Your task to perform on an android device: Show me popular games on the Play Store Image 0: 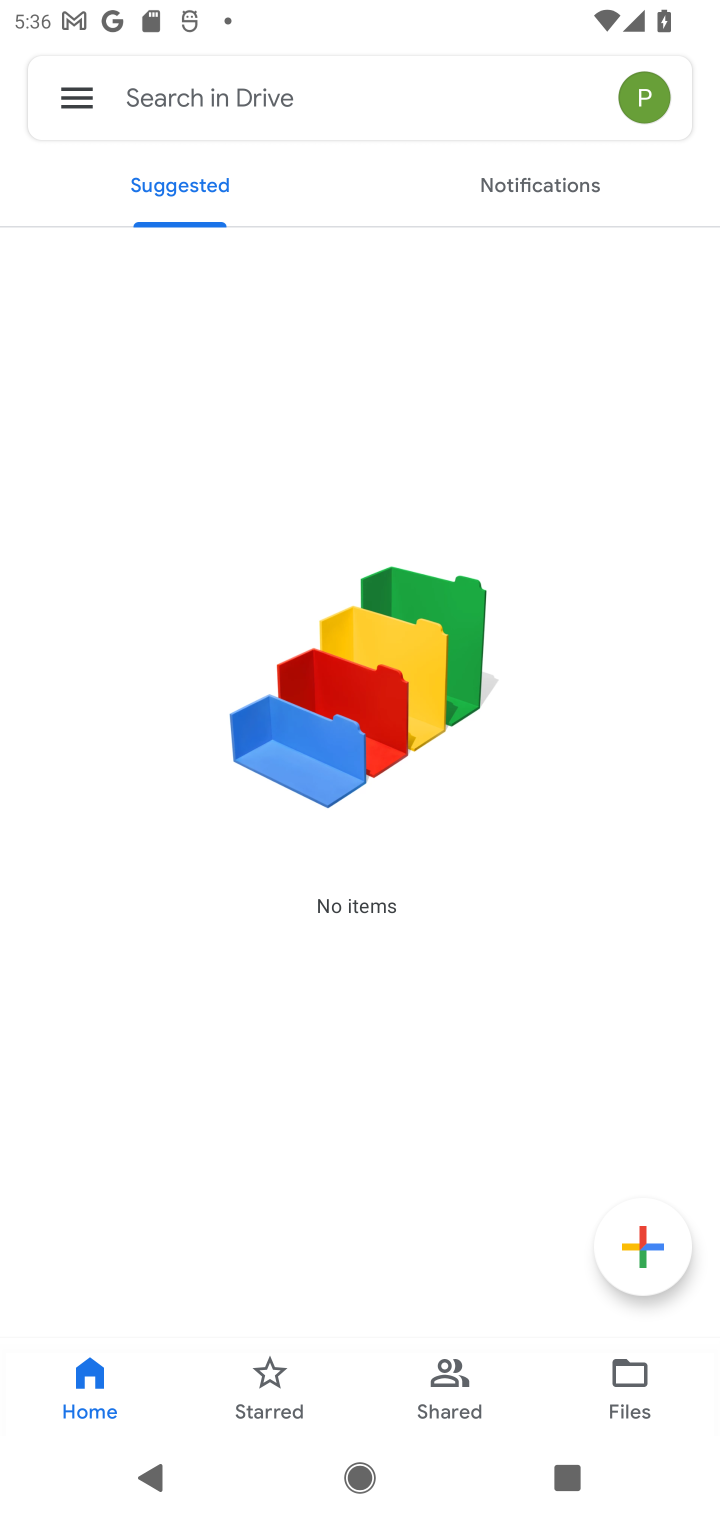
Step 0: press home button
Your task to perform on an android device: Show me popular games on the Play Store Image 1: 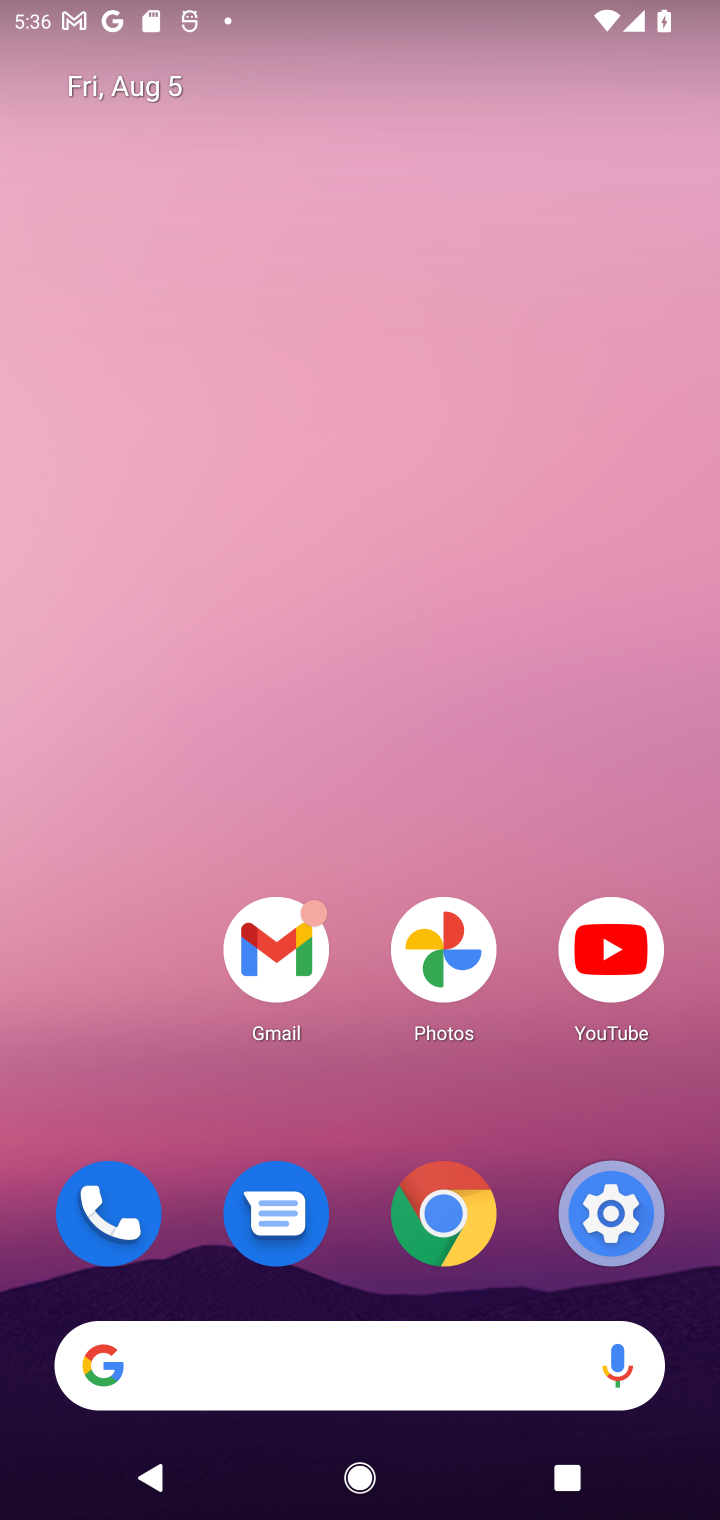
Step 1: drag from (364, 1285) to (429, 9)
Your task to perform on an android device: Show me popular games on the Play Store Image 2: 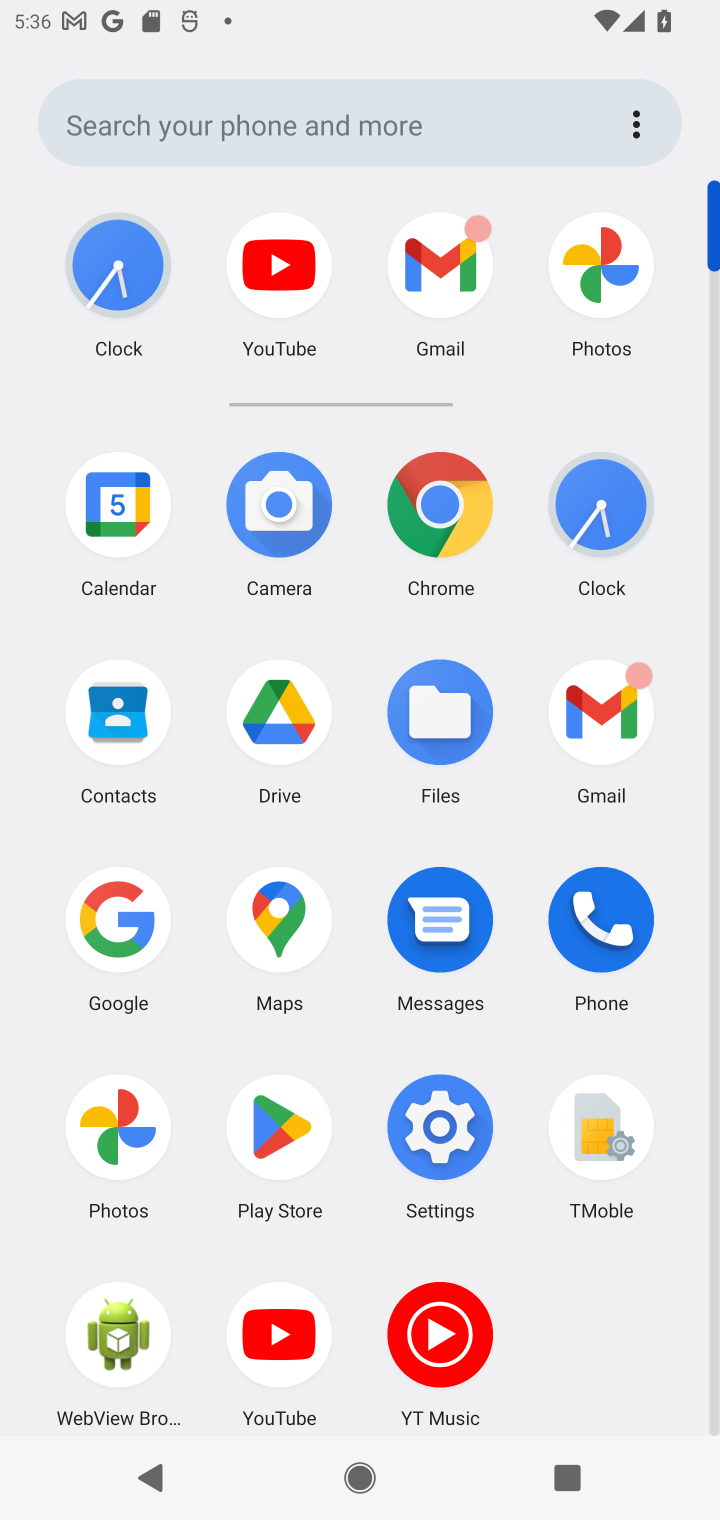
Step 2: click (289, 1154)
Your task to perform on an android device: Show me popular games on the Play Store Image 3: 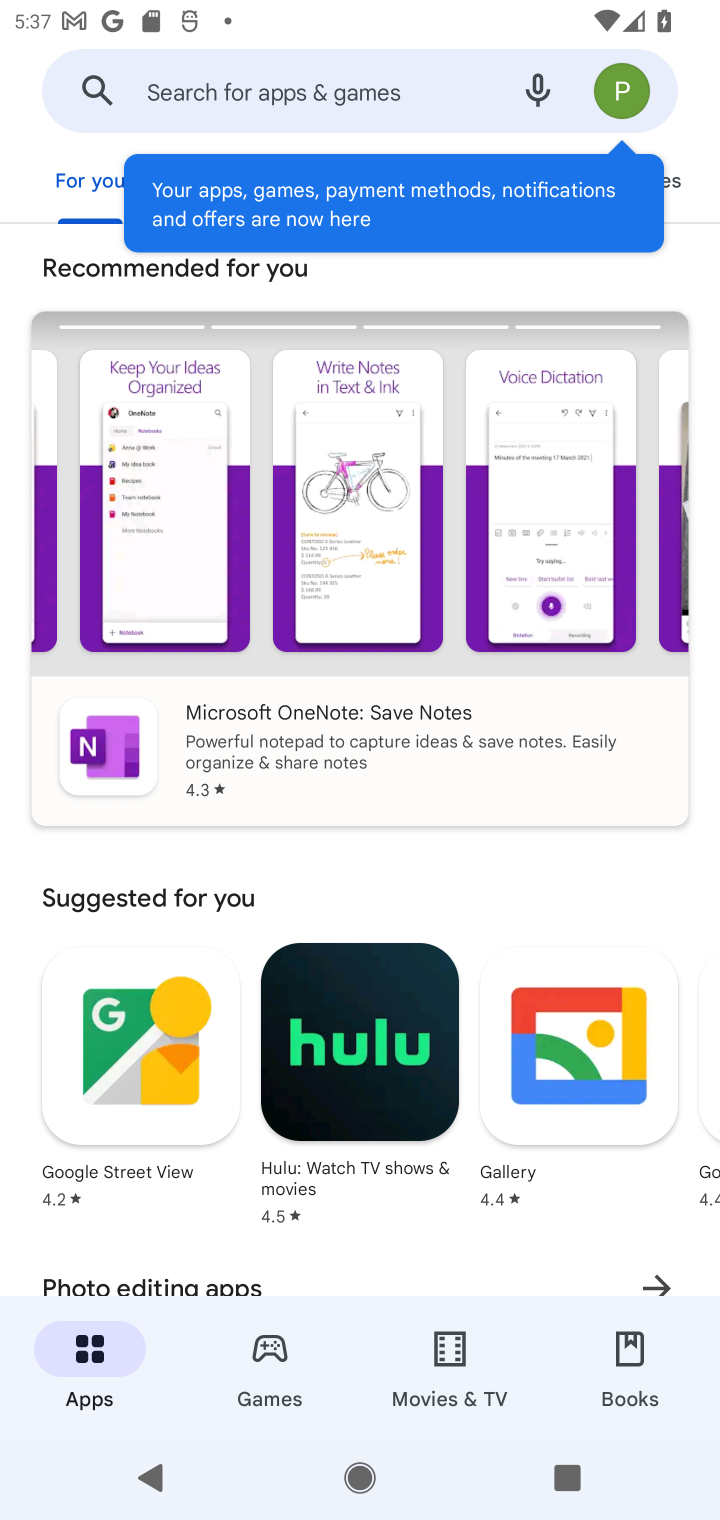
Step 3: click (286, 1317)
Your task to perform on an android device: Show me popular games on the Play Store Image 4: 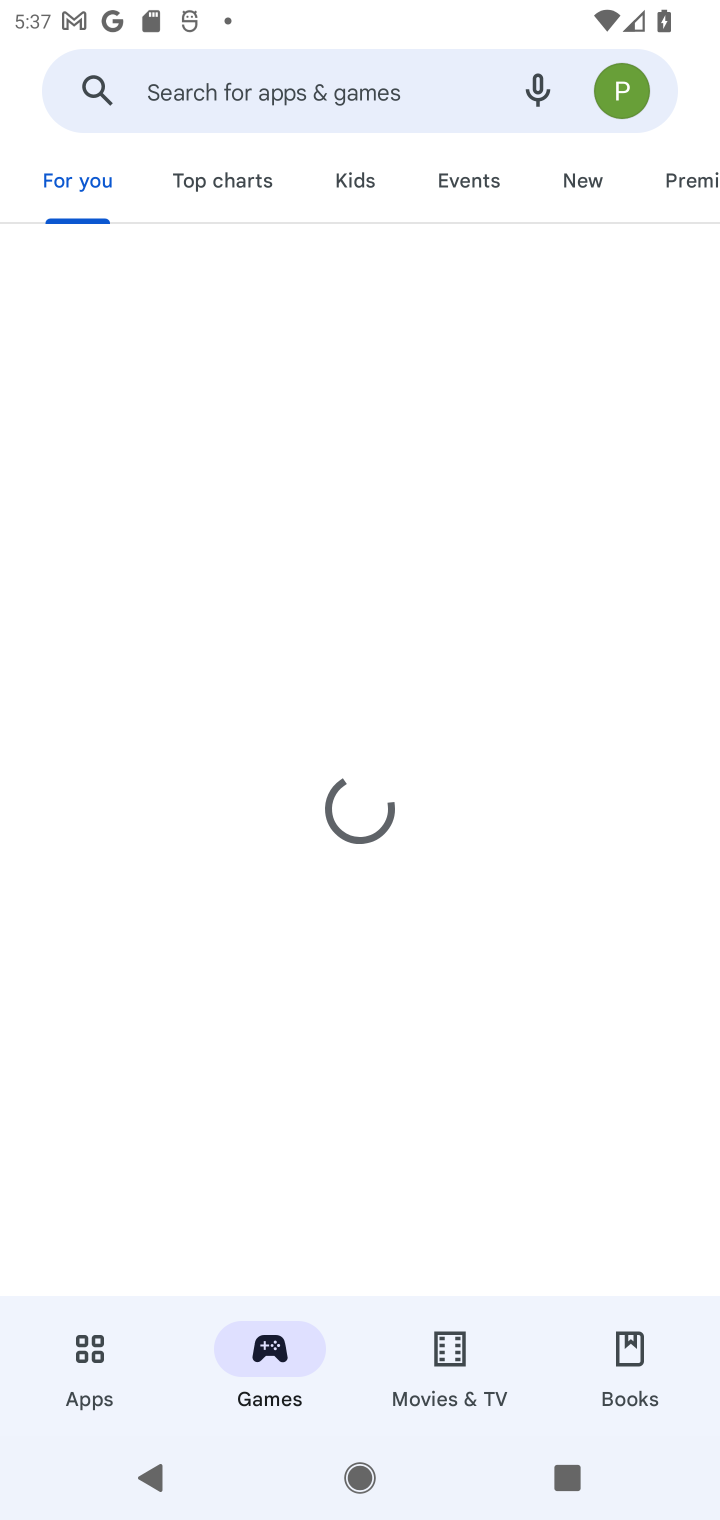
Step 4: task complete